Your task to perform on an android device: turn on the 12-hour format for clock Image 0: 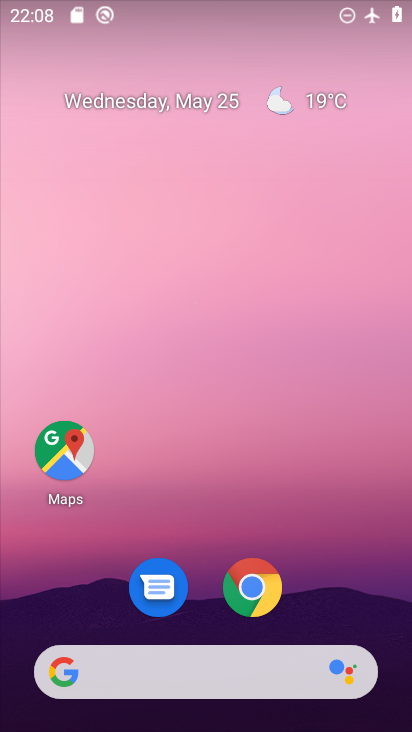
Step 0: drag from (391, 635) to (269, 108)
Your task to perform on an android device: turn on the 12-hour format for clock Image 1: 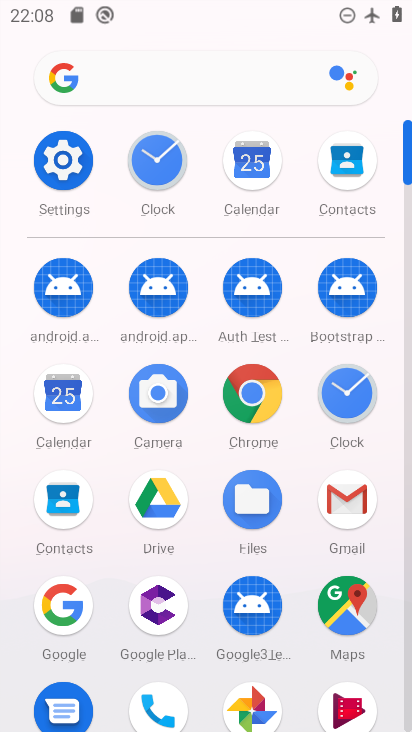
Step 1: click (349, 394)
Your task to perform on an android device: turn on the 12-hour format for clock Image 2: 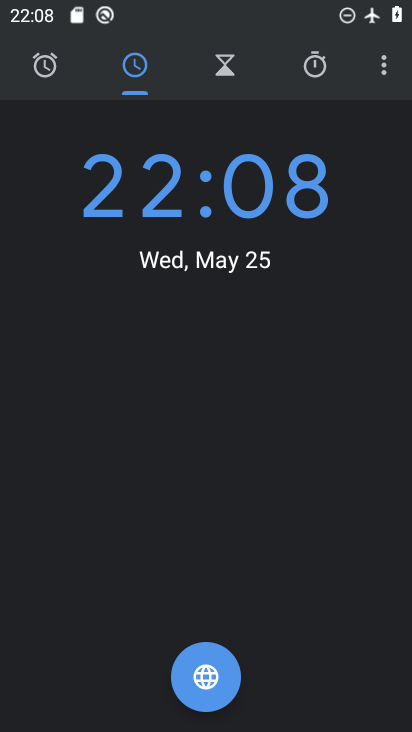
Step 2: click (385, 78)
Your task to perform on an android device: turn on the 12-hour format for clock Image 3: 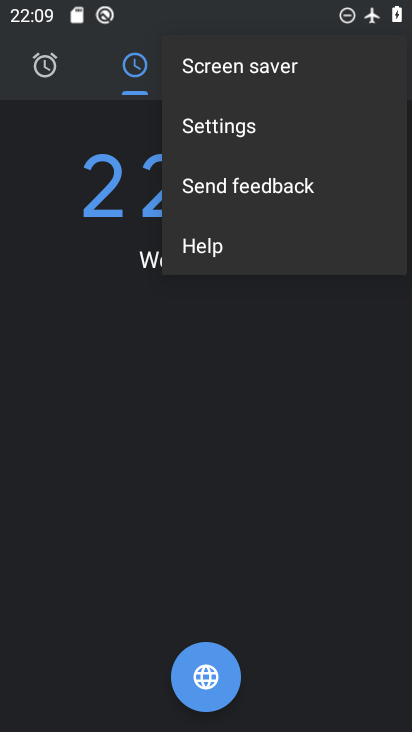
Step 3: click (238, 133)
Your task to perform on an android device: turn on the 12-hour format for clock Image 4: 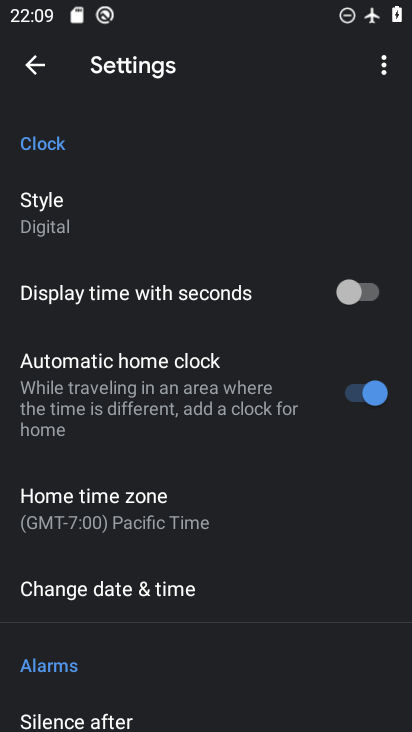
Step 4: click (148, 607)
Your task to perform on an android device: turn on the 12-hour format for clock Image 5: 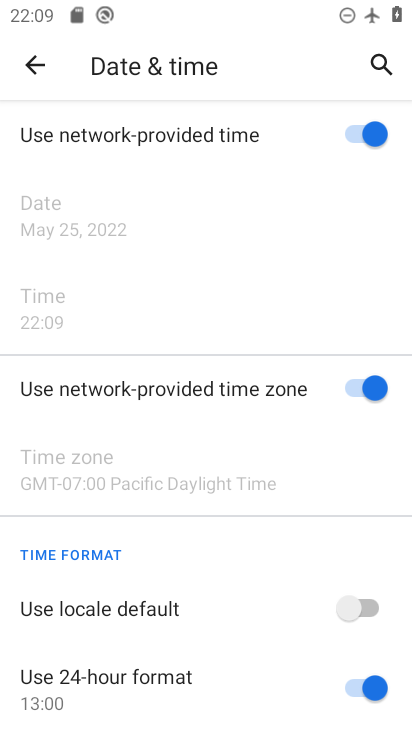
Step 5: click (368, 610)
Your task to perform on an android device: turn on the 12-hour format for clock Image 6: 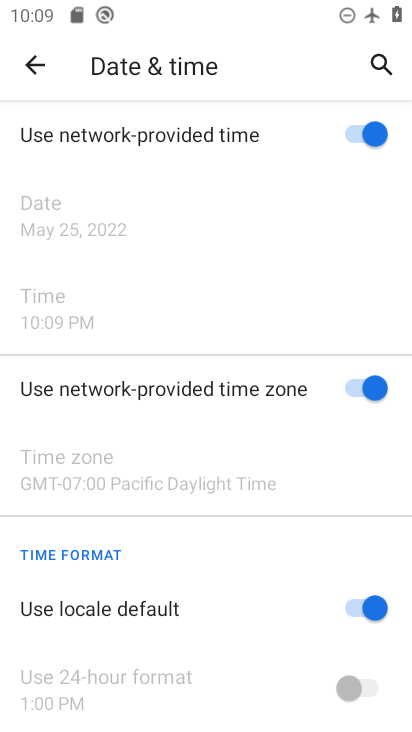
Step 6: task complete